Your task to perform on an android device: open app "Pandora - Music & Podcasts" (install if not already installed) and enter user name: "creator@yahoo.com" and password: "valuable" Image 0: 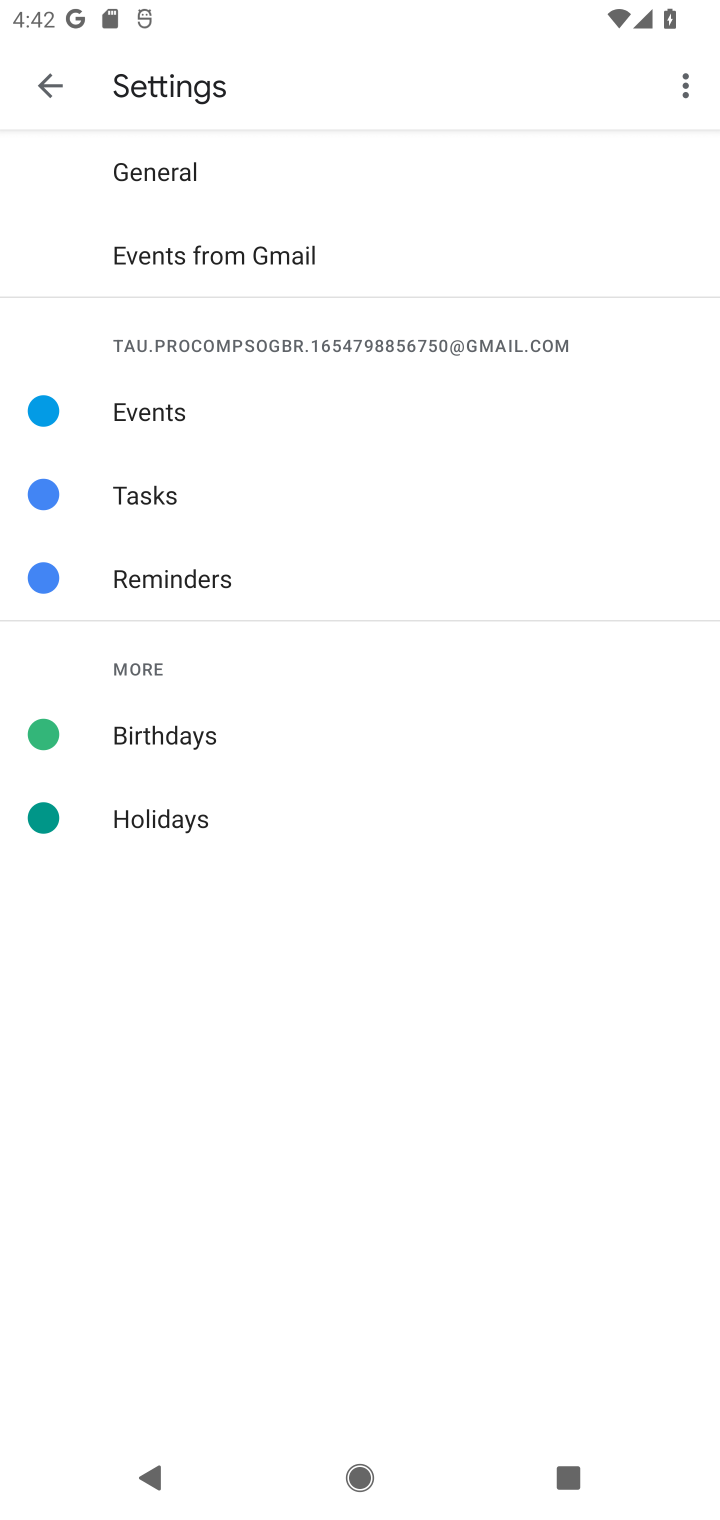
Step 0: press home button
Your task to perform on an android device: open app "Pandora - Music & Podcasts" (install if not already installed) and enter user name: "creator@yahoo.com" and password: "valuable" Image 1: 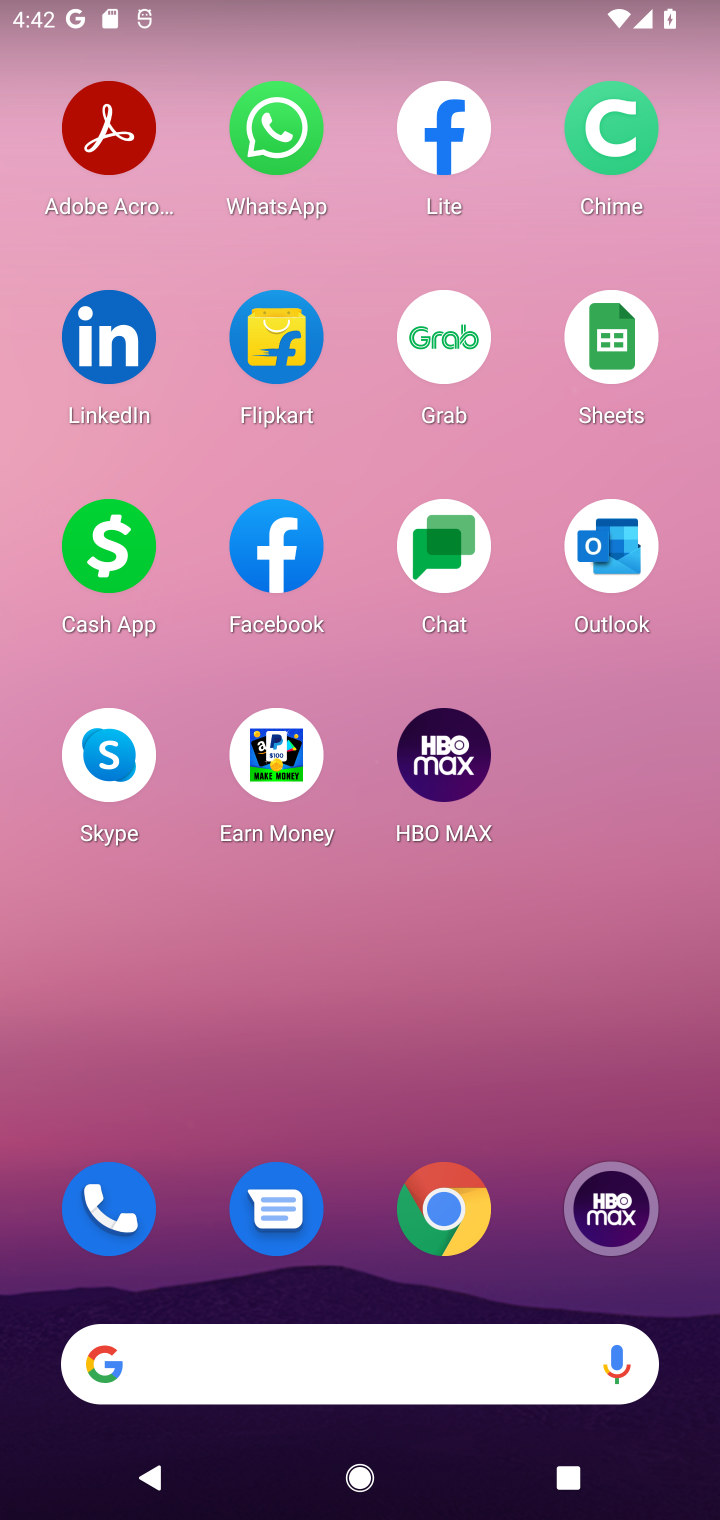
Step 1: drag from (340, 1288) to (380, 78)
Your task to perform on an android device: open app "Pandora - Music & Podcasts" (install if not already installed) and enter user name: "creator@yahoo.com" and password: "valuable" Image 2: 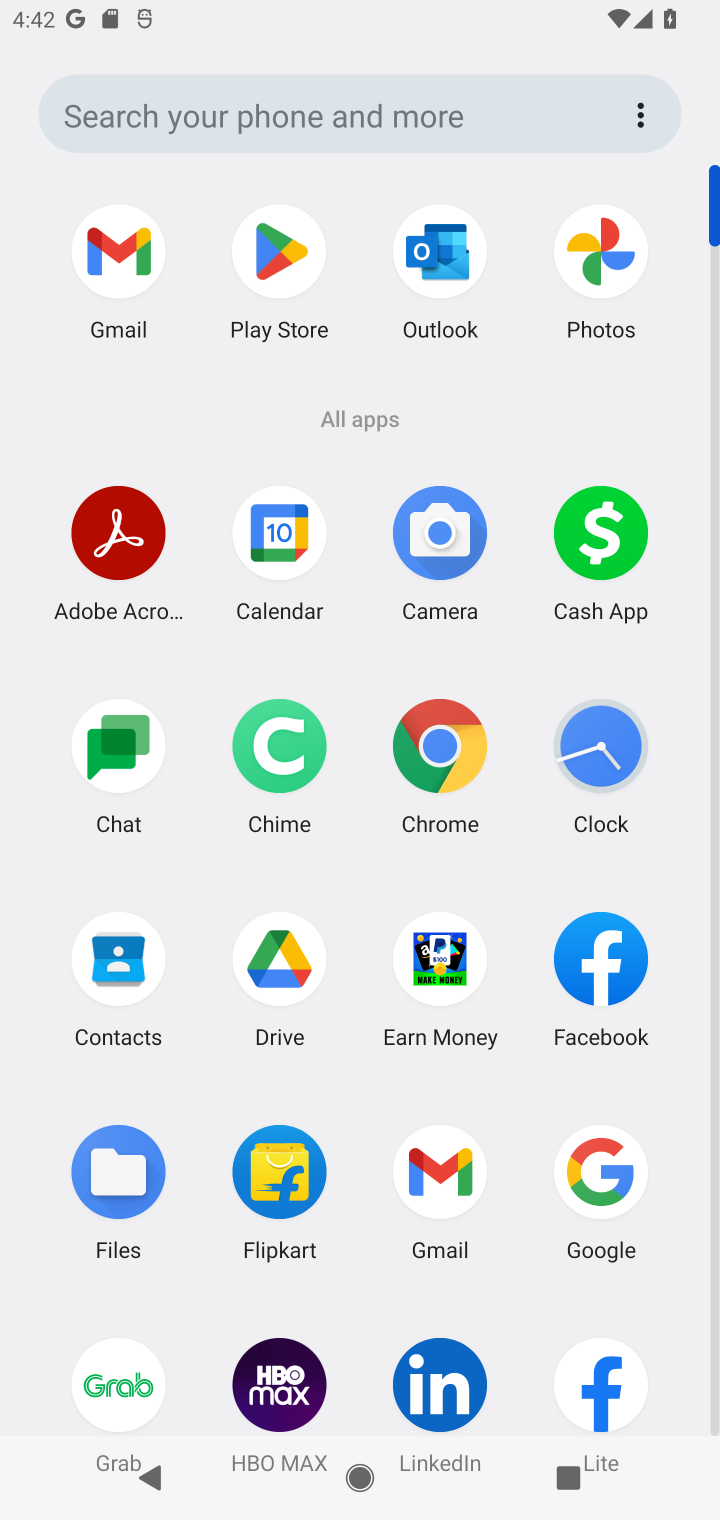
Step 2: click (249, 265)
Your task to perform on an android device: open app "Pandora - Music & Podcasts" (install if not already installed) and enter user name: "creator@yahoo.com" and password: "valuable" Image 3: 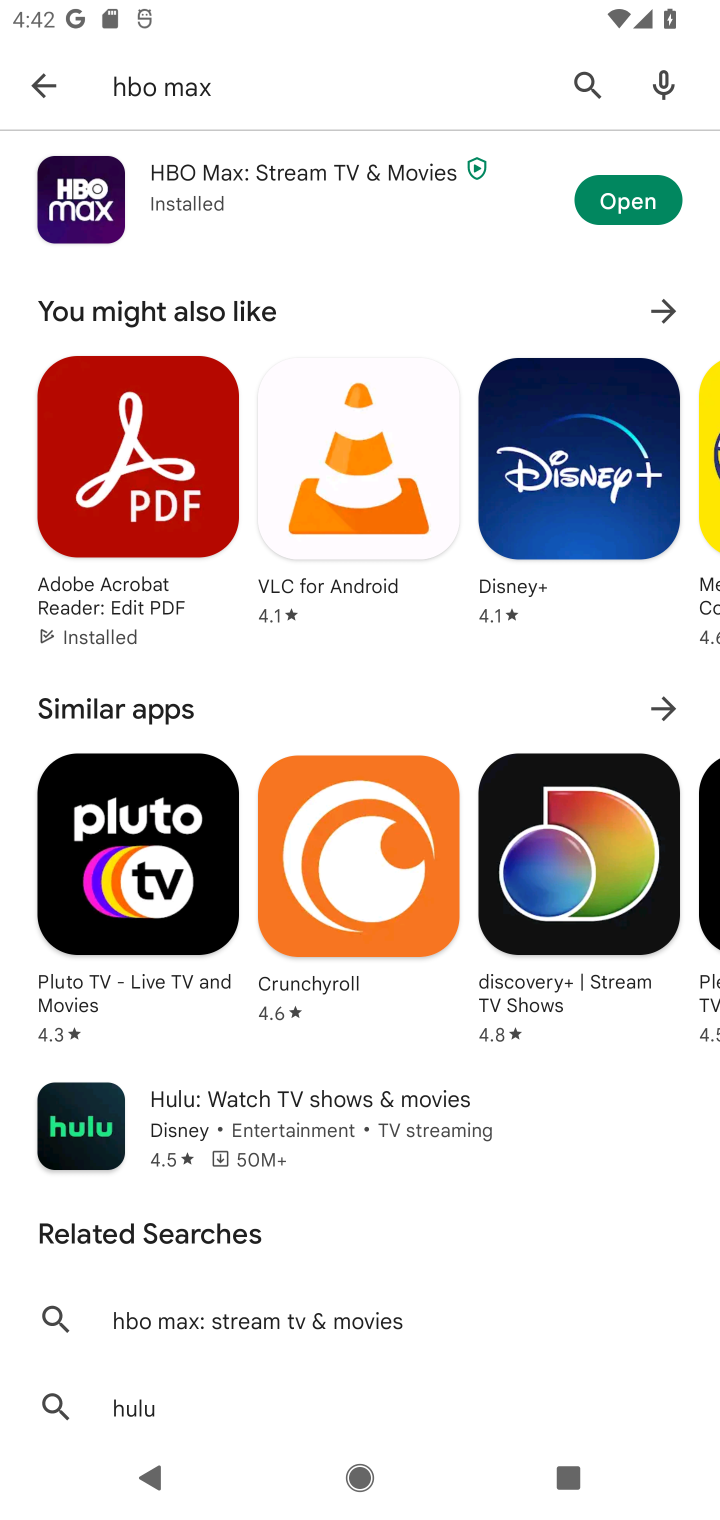
Step 3: click (561, 71)
Your task to perform on an android device: open app "Pandora - Music & Podcasts" (install if not already installed) and enter user name: "creator@yahoo.com" and password: "valuable" Image 4: 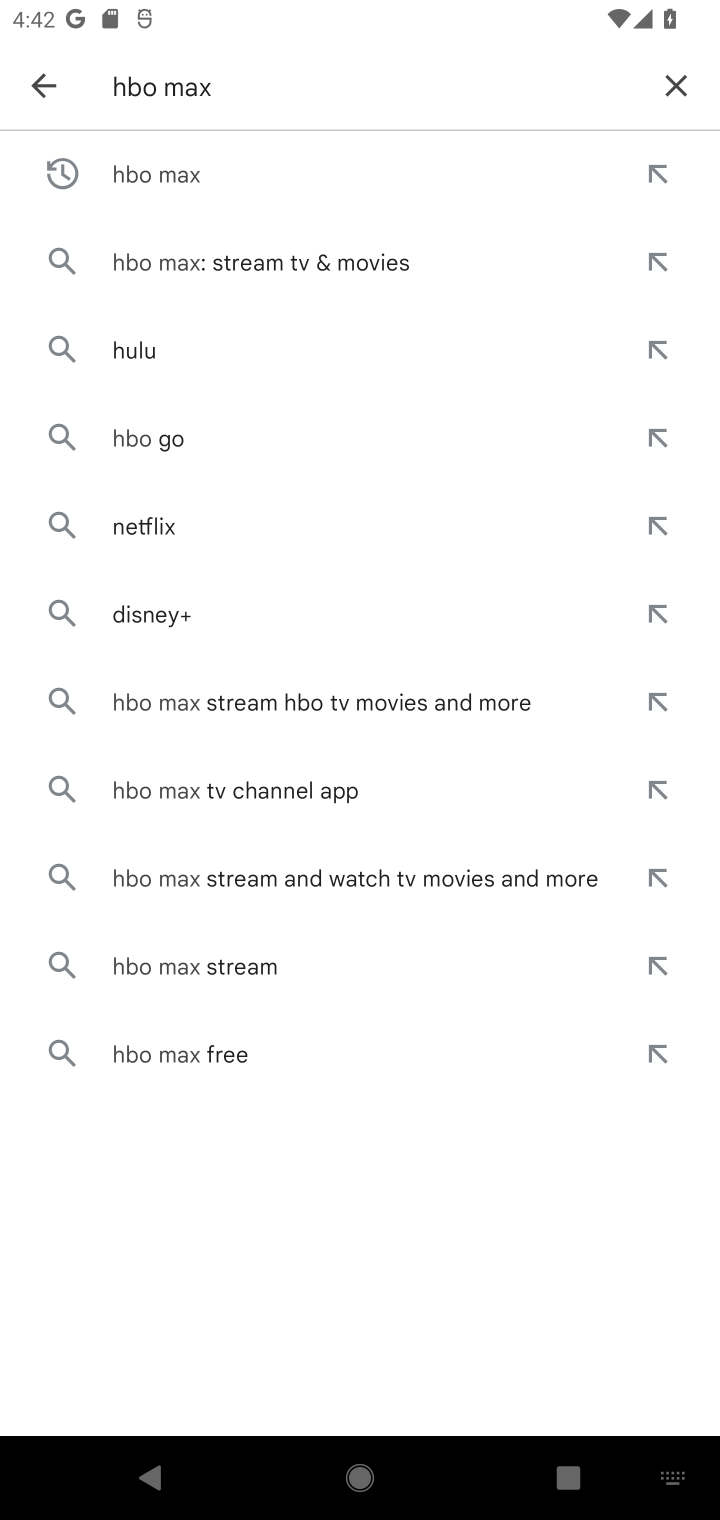
Step 4: click (684, 82)
Your task to perform on an android device: open app "Pandora - Music & Podcasts" (install if not already installed) and enter user name: "creator@yahoo.com" and password: "valuable" Image 5: 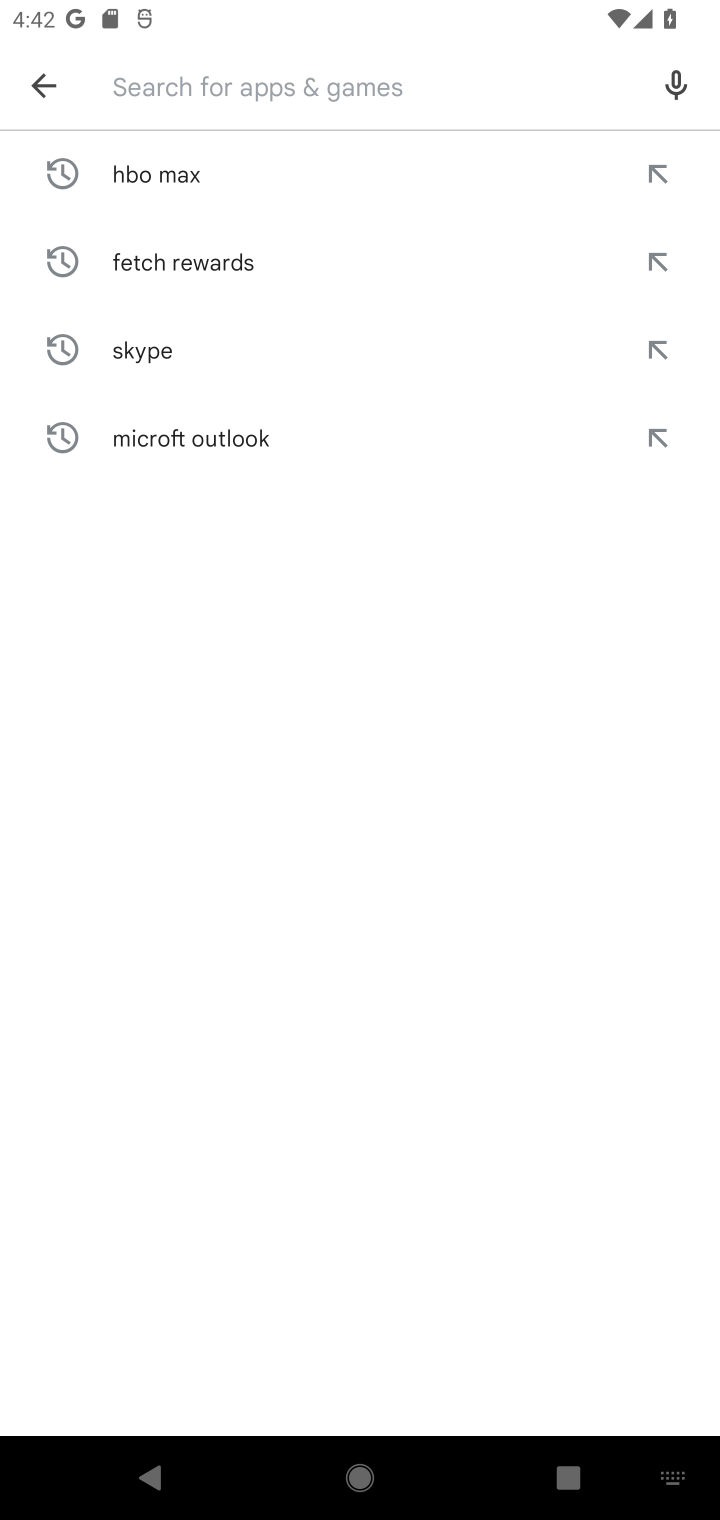
Step 5: type "pandora"
Your task to perform on an android device: open app "Pandora - Music & Podcasts" (install if not already installed) and enter user name: "creator@yahoo.com" and password: "valuable" Image 6: 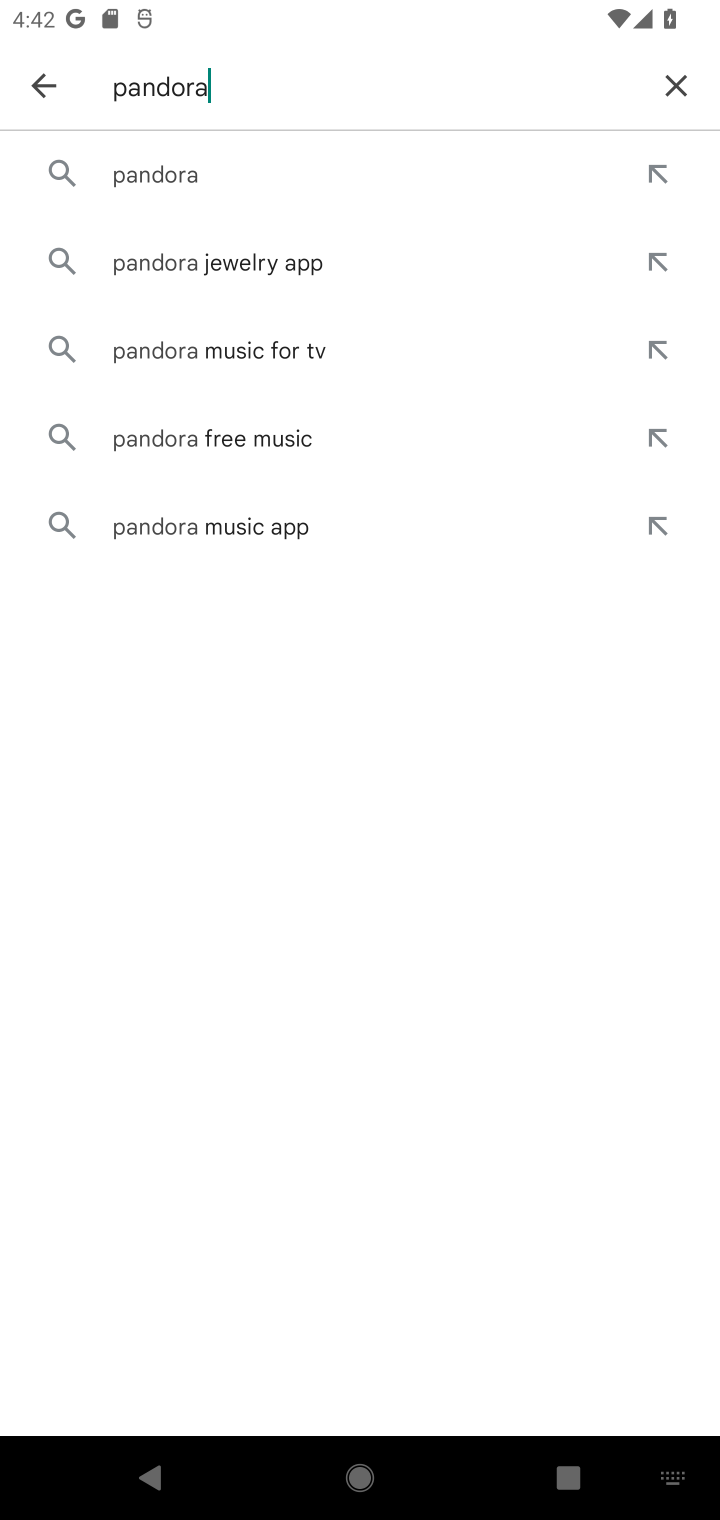
Step 6: click (194, 183)
Your task to perform on an android device: open app "Pandora - Music & Podcasts" (install if not already installed) and enter user name: "creator@yahoo.com" and password: "valuable" Image 7: 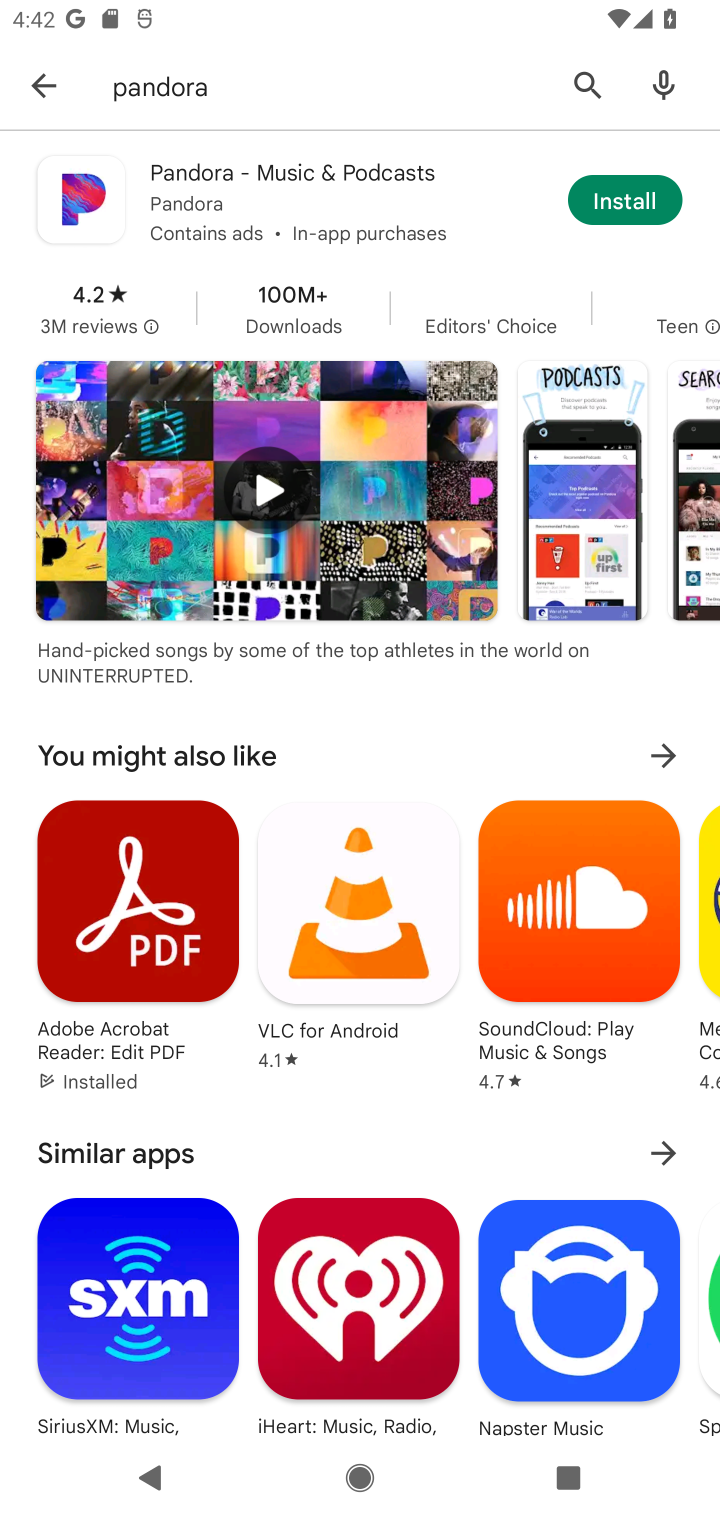
Step 7: click (586, 201)
Your task to perform on an android device: open app "Pandora - Music & Podcasts" (install if not already installed) and enter user name: "creator@yahoo.com" and password: "valuable" Image 8: 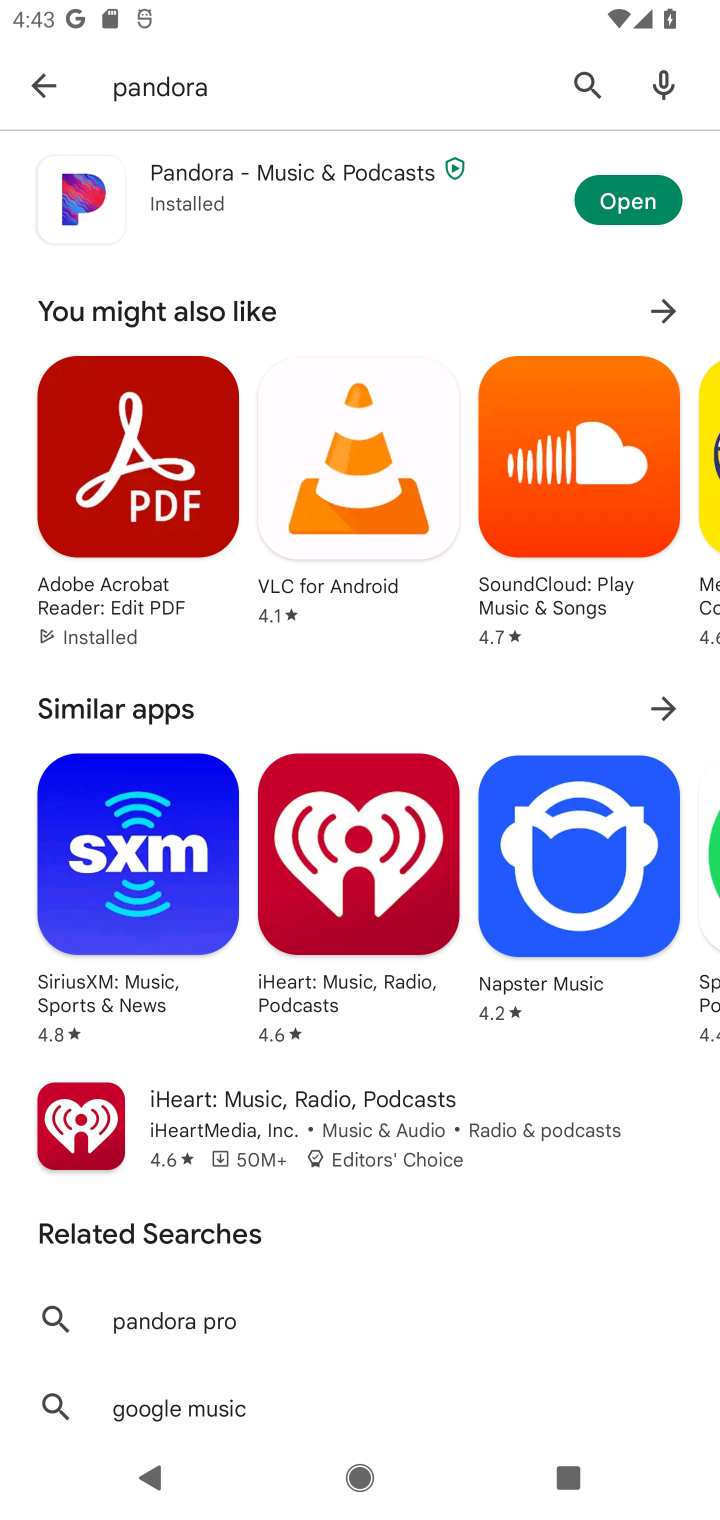
Step 8: click (656, 201)
Your task to perform on an android device: open app "Pandora - Music & Podcasts" (install if not already installed) and enter user name: "creator@yahoo.com" and password: "valuable" Image 9: 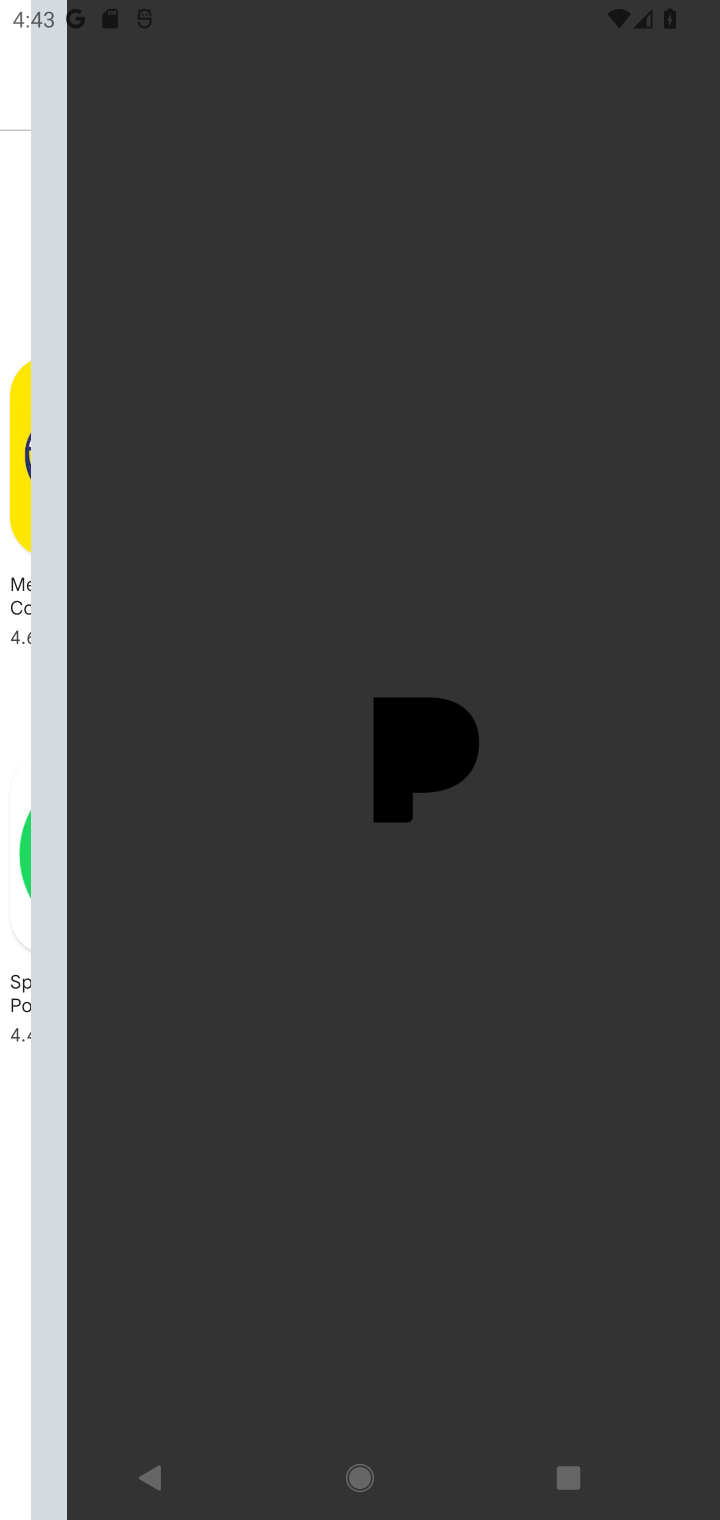
Step 9: task complete